Your task to perform on an android device: toggle airplane mode Image 0: 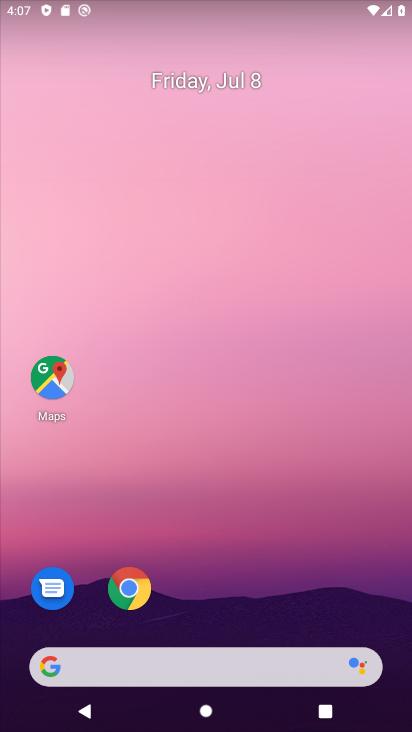
Step 0: drag from (298, 715) to (230, 239)
Your task to perform on an android device: toggle airplane mode Image 1: 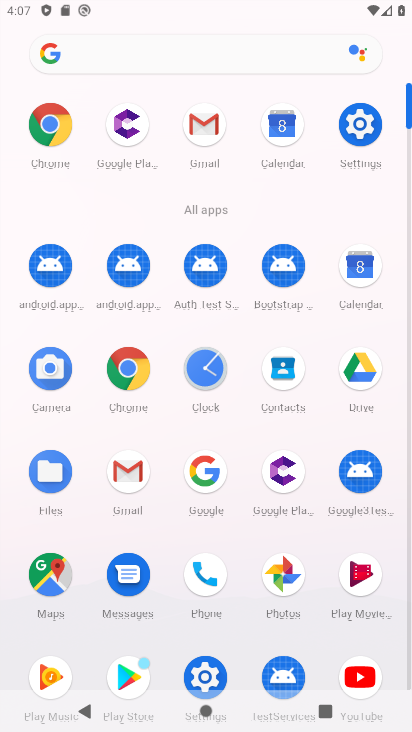
Step 1: click (356, 119)
Your task to perform on an android device: toggle airplane mode Image 2: 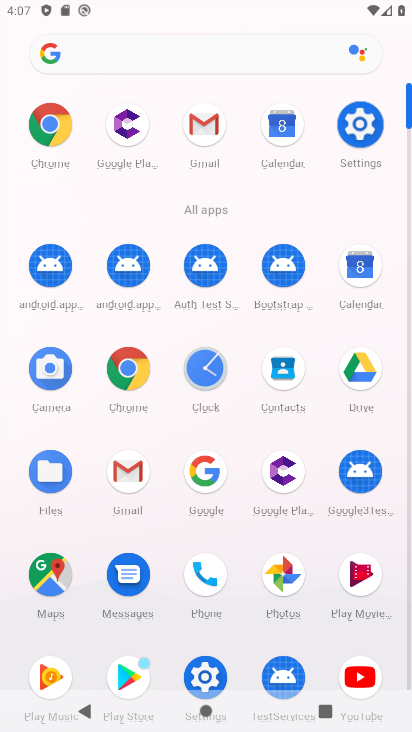
Step 2: click (358, 121)
Your task to perform on an android device: toggle airplane mode Image 3: 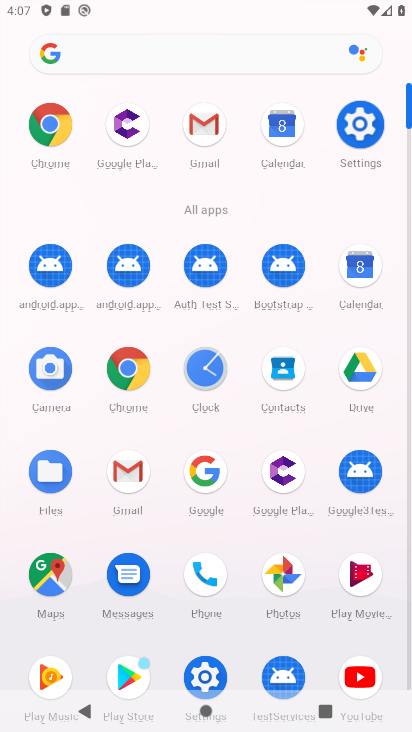
Step 3: click (358, 121)
Your task to perform on an android device: toggle airplane mode Image 4: 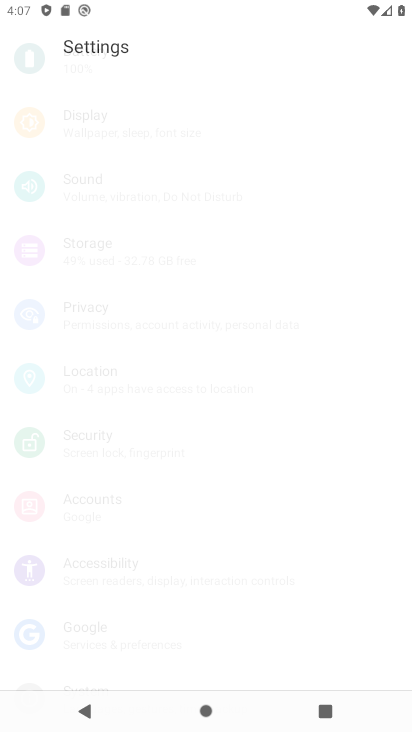
Step 4: click (358, 122)
Your task to perform on an android device: toggle airplane mode Image 5: 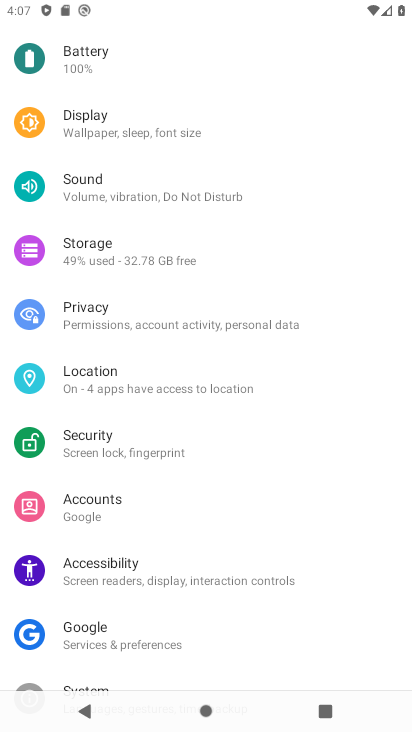
Step 5: click (358, 122)
Your task to perform on an android device: toggle airplane mode Image 6: 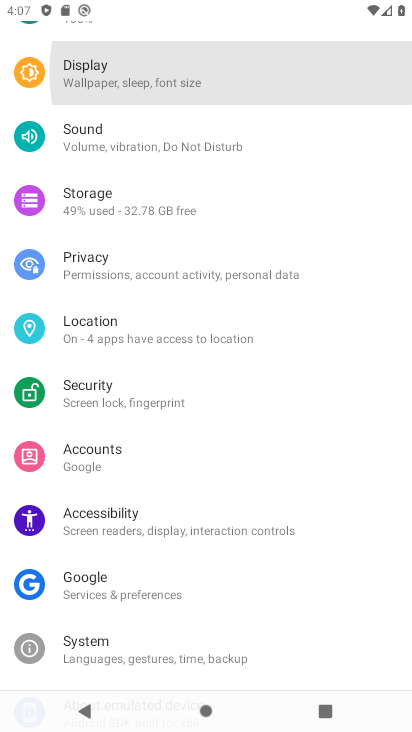
Step 6: click (358, 122)
Your task to perform on an android device: toggle airplane mode Image 7: 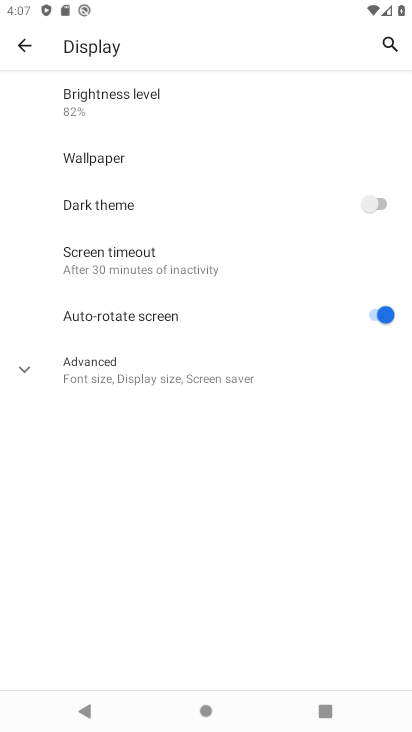
Step 7: click (22, 40)
Your task to perform on an android device: toggle airplane mode Image 8: 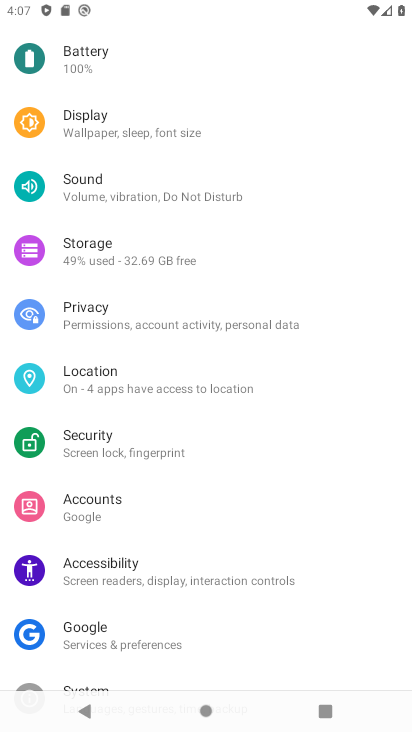
Step 8: drag from (152, 165) to (164, 508)
Your task to perform on an android device: toggle airplane mode Image 9: 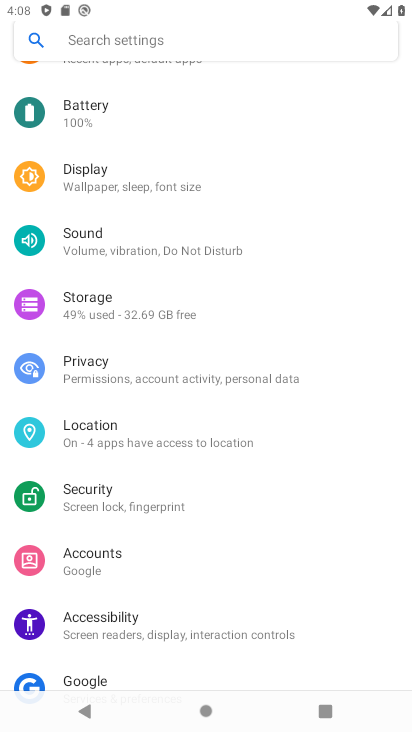
Step 9: drag from (101, 194) to (143, 450)
Your task to perform on an android device: toggle airplane mode Image 10: 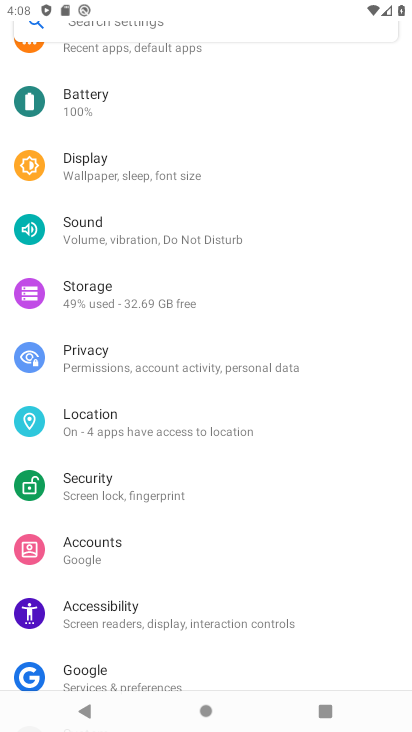
Step 10: drag from (123, 302) to (298, 528)
Your task to perform on an android device: toggle airplane mode Image 11: 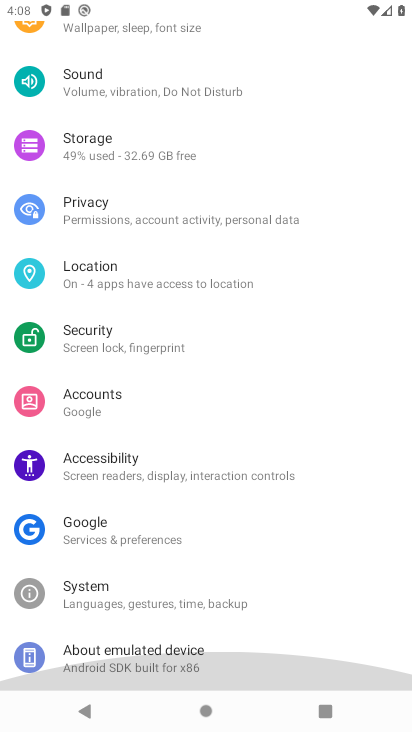
Step 11: drag from (175, 488) to (138, 253)
Your task to perform on an android device: toggle airplane mode Image 12: 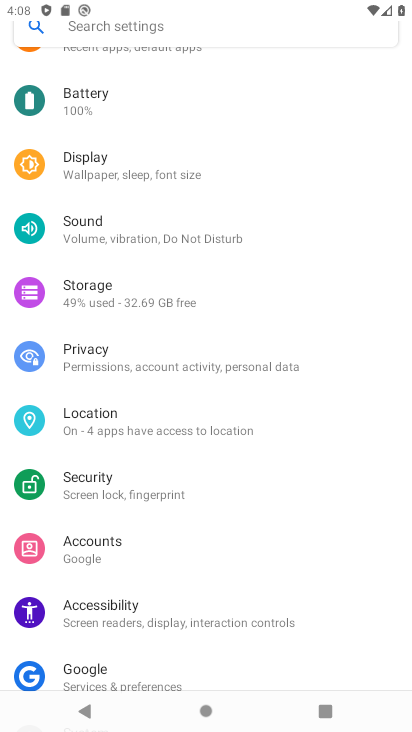
Step 12: click (145, 390)
Your task to perform on an android device: toggle airplane mode Image 13: 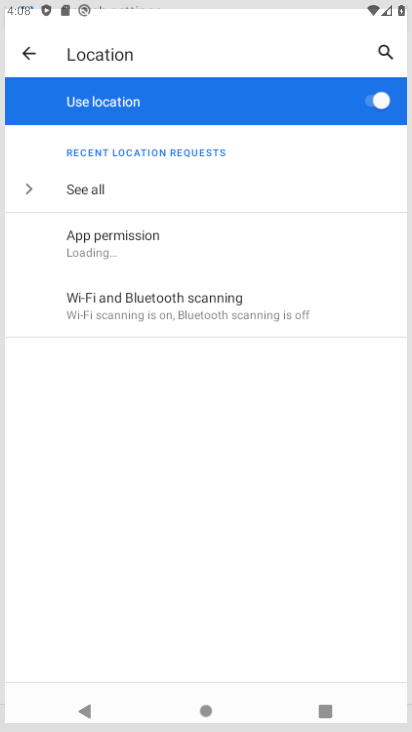
Step 13: drag from (102, 274) to (161, 496)
Your task to perform on an android device: toggle airplane mode Image 14: 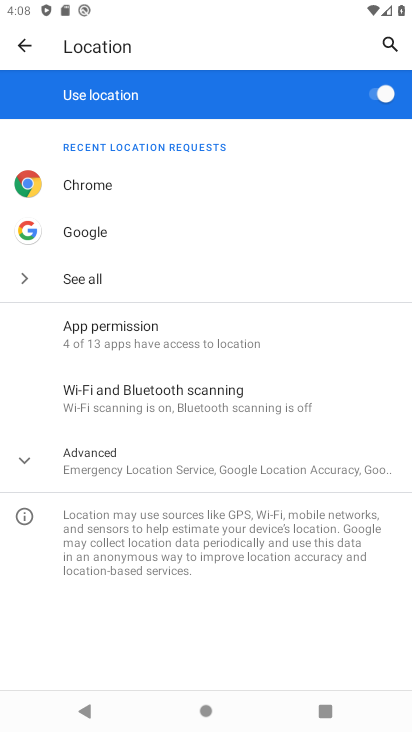
Step 14: click (43, 46)
Your task to perform on an android device: toggle airplane mode Image 15: 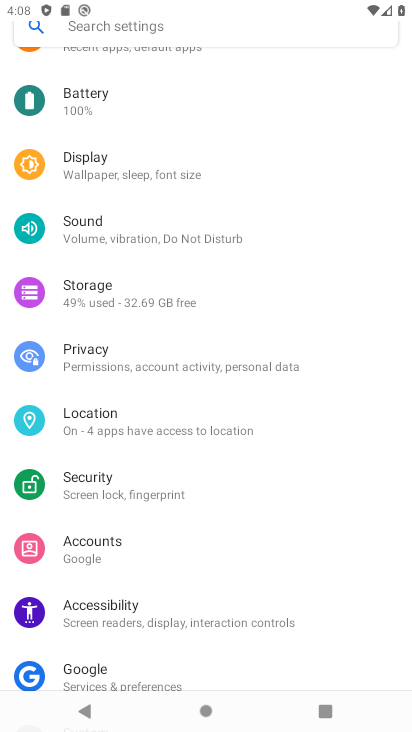
Step 15: click (186, 459)
Your task to perform on an android device: toggle airplane mode Image 16: 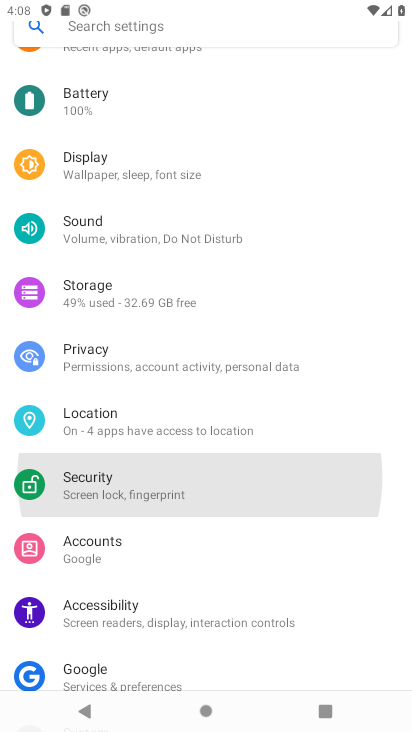
Step 16: click (270, 600)
Your task to perform on an android device: toggle airplane mode Image 17: 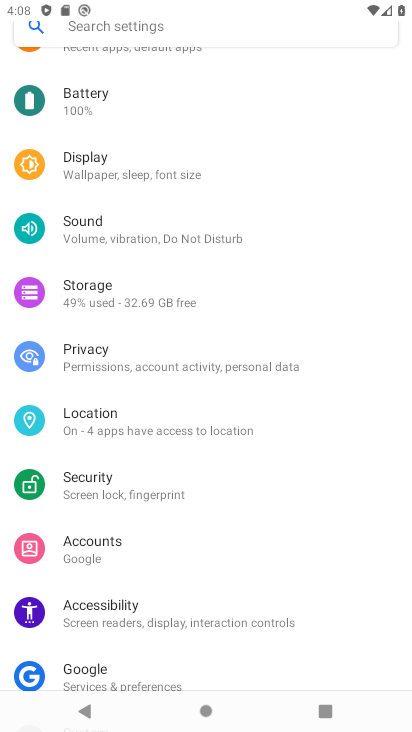
Step 17: click (295, 624)
Your task to perform on an android device: toggle airplane mode Image 18: 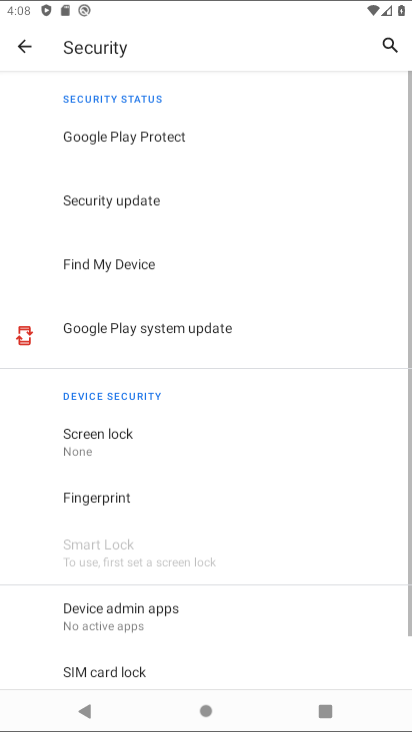
Step 18: click (185, 580)
Your task to perform on an android device: toggle airplane mode Image 19: 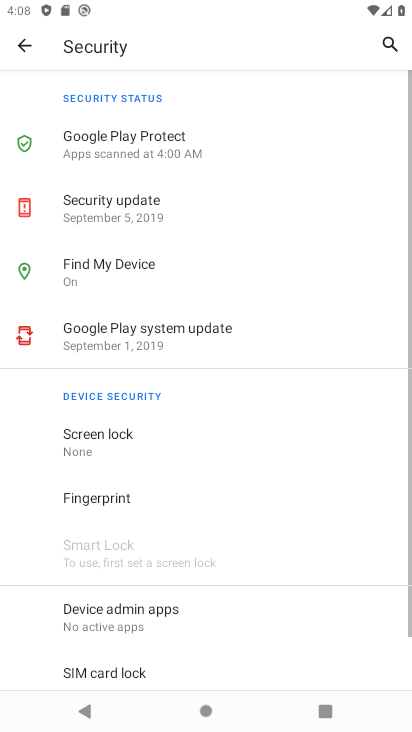
Step 19: drag from (195, 508) to (194, 560)
Your task to perform on an android device: toggle airplane mode Image 20: 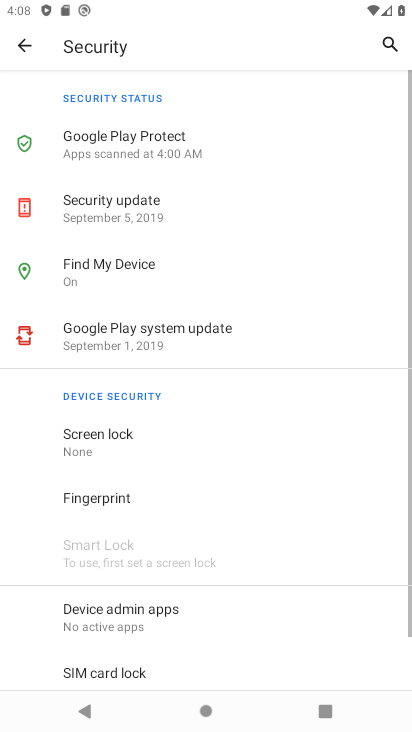
Step 20: click (20, 41)
Your task to perform on an android device: toggle airplane mode Image 21: 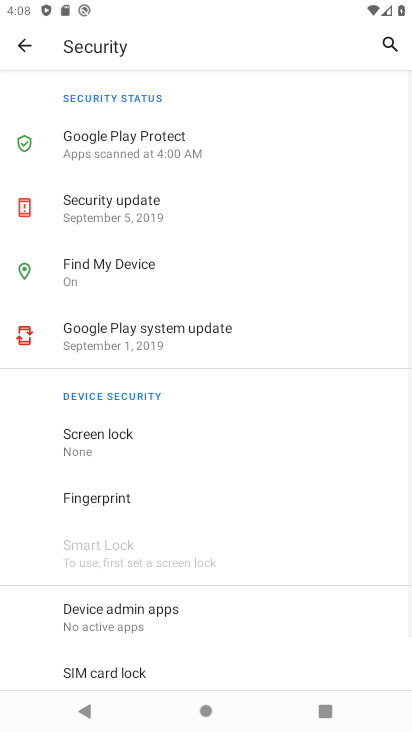
Step 21: click (24, 50)
Your task to perform on an android device: toggle airplane mode Image 22: 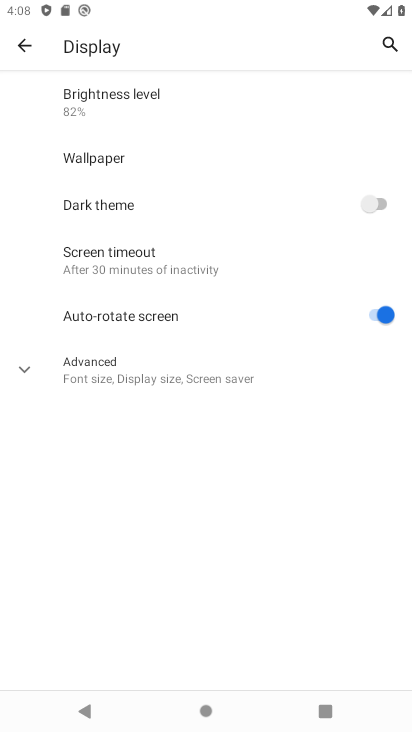
Step 22: drag from (97, 109) to (169, 430)
Your task to perform on an android device: toggle airplane mode Image 23: 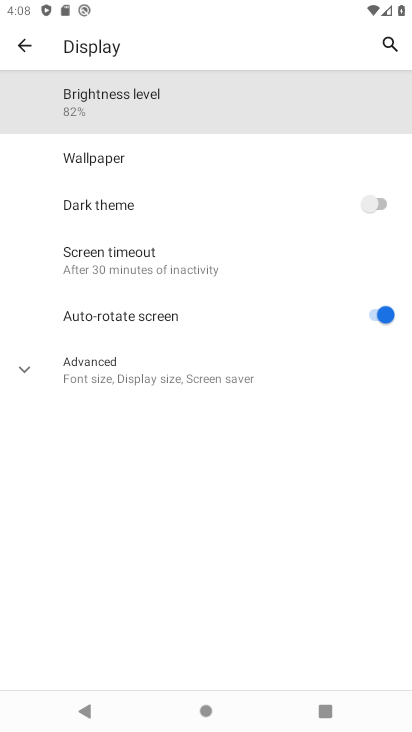
Step 23: drag from (241, 404) to (207, 697)
Your task to perform on an android device: toggle airplane mode Image 24: 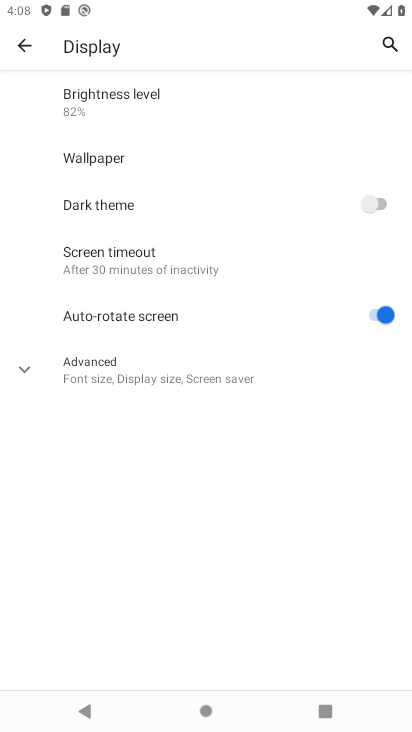
Step 24: click (19, 43)
Your task to perform on an android device: toggle airplane mode Image 25: 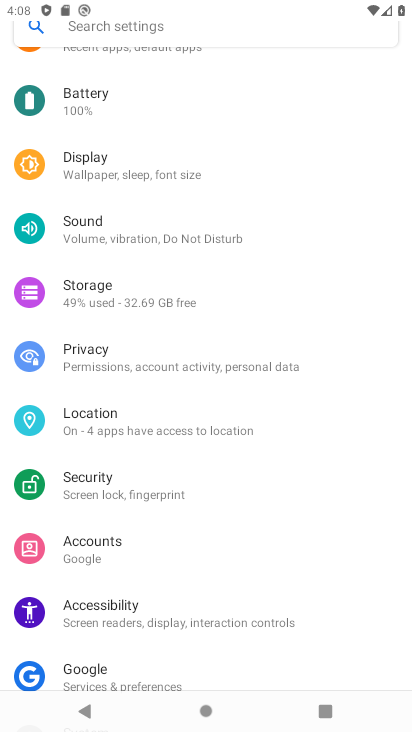
Step 25: drag from (173, 339) to (185, 629)
Your task to perform on an android device: toggle airplane mode Image 26: 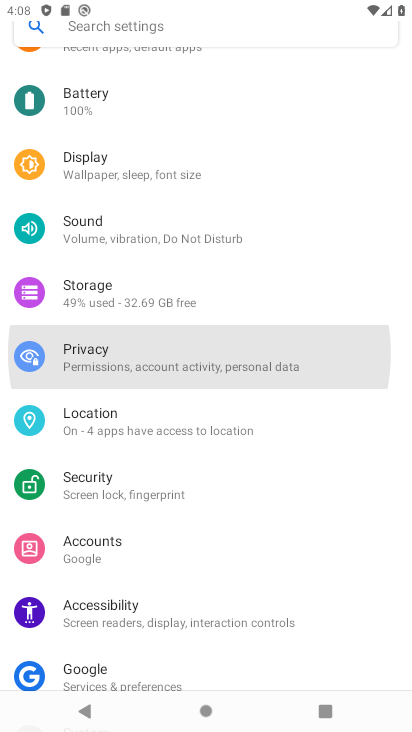
Step 26: drag from (146, 275) to (166, 555)
Your task to perform on an android device: toggle airplane mode Image 27: 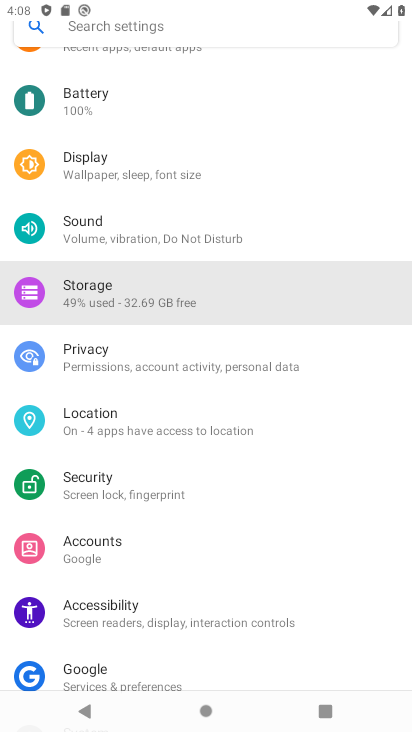
Step 27: drag from (99, 157) to (211, 646)
Your task to perform on an android device: toggle airplane mode Image 28: 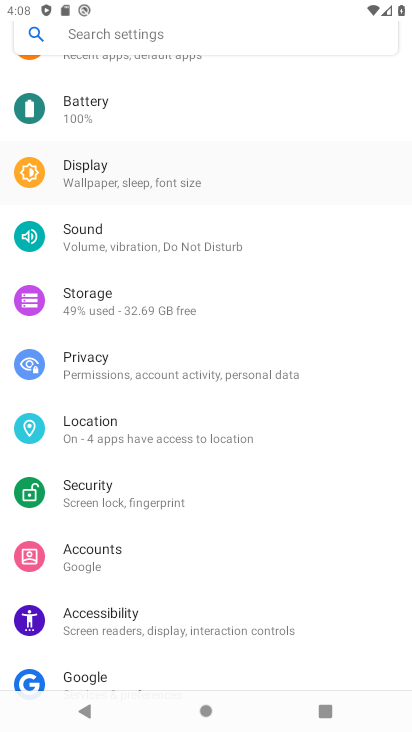
Step 28: drag from (121, 334) to (166, 630)
Your task to perform on an android device: toggle airplane mode Image 29: 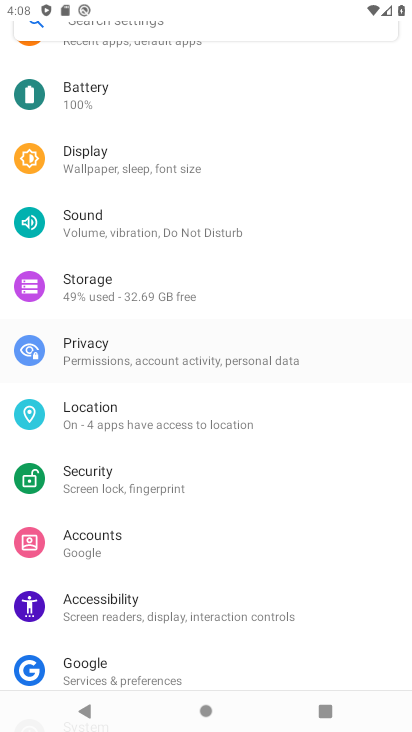
Step 29: drag from (151, 359) to (178, 578)
Your task to perform on an android device: toggle airplane mode Image 30: 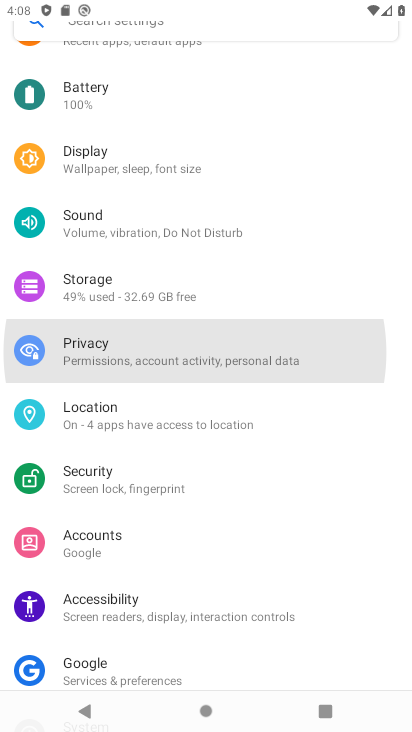
Step 30: drag from (172, 115) to (194, 522)
Your task to perform on an android device: toggle airplane mode Image 31: 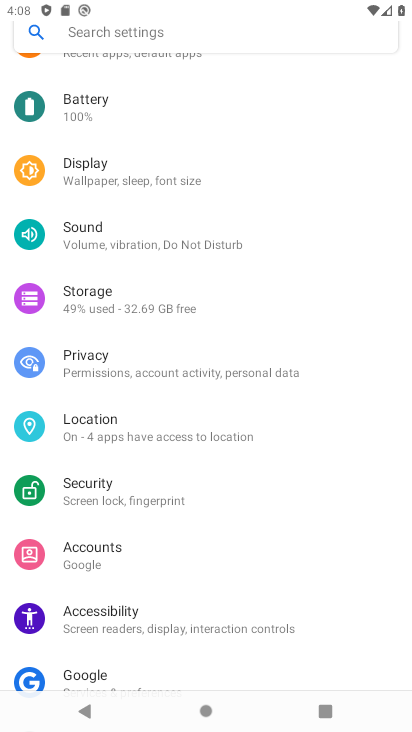
Step 31: drag from (134, 133) to (221, 647)
Your task to perform on an android device: toggle airplane mode Image 32: 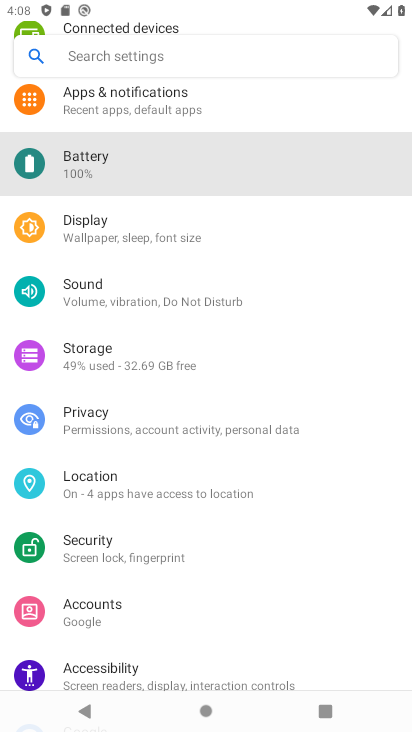
Step 32: drag from (192, 296) to (127, 530)
Your task to perform on an android device: toggle airplane mode Image 33: 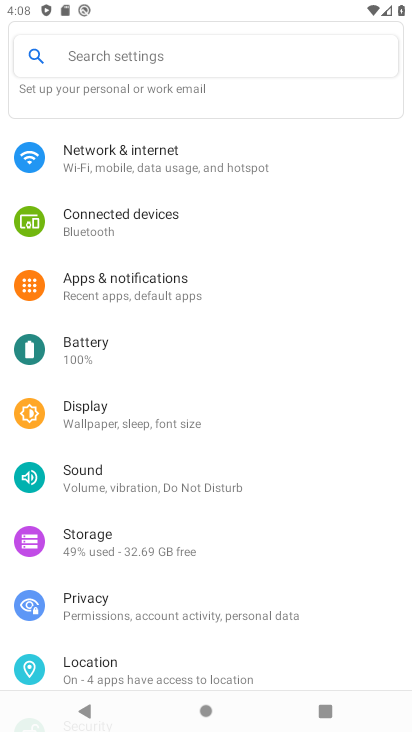
Step 33: click (188, 568)
Your task to perform on an android device: toggle airplane mode Image 34: 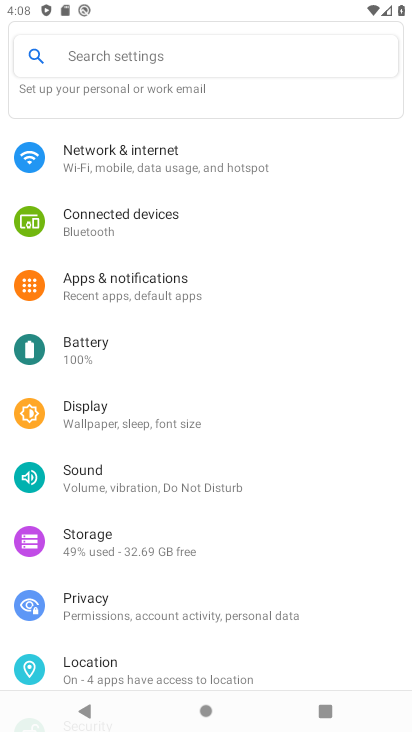
Step 34: click (126, 159)
Your task to perform on an android device: toggle airplane mode Image 35: 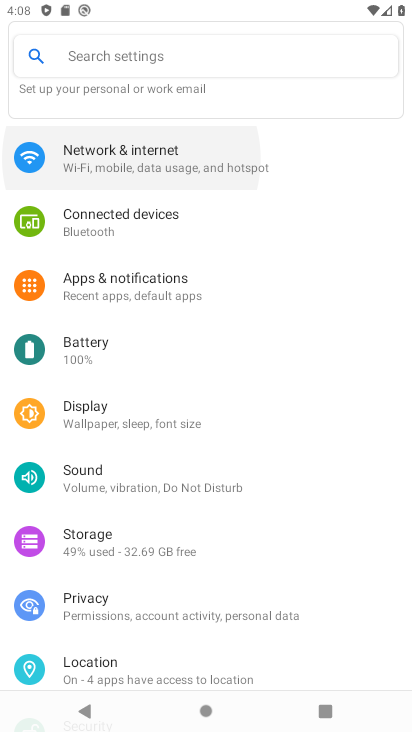
Step 35: click (113, 155)
Your task to perform on an android device: toggle airplane mode Image 36: 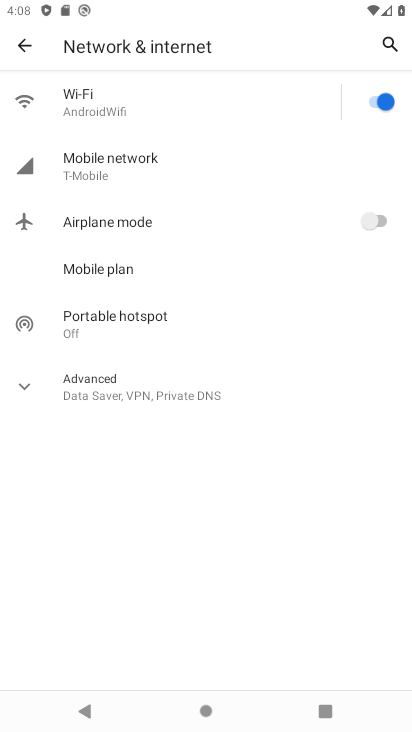
Step 36: click (121, 154)
Your task to perform on an android device: toggle airplane mode Image 37: 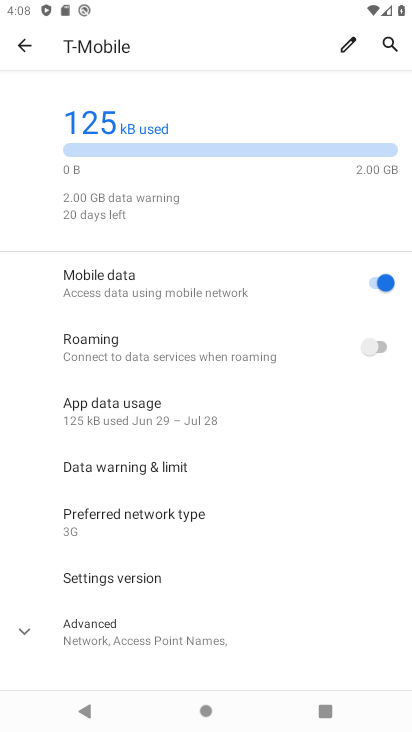
Step 37: click (21, 47)
Your task to perform on an android device: toggle airplane mode Image 38: 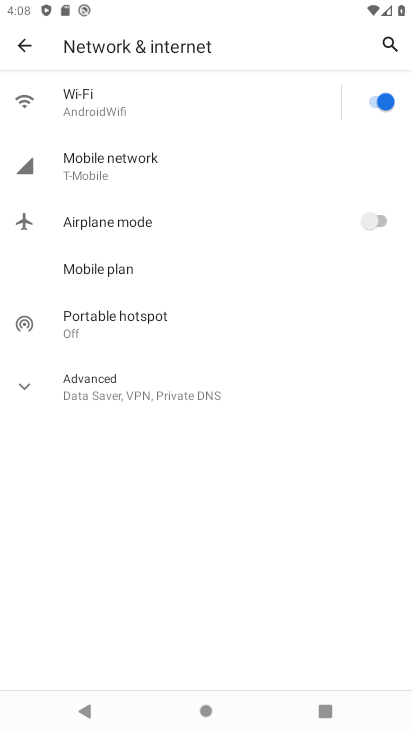
Step 38: click (372, 212)
Your task to perform on an android device: toggle airplane mode Image 39: 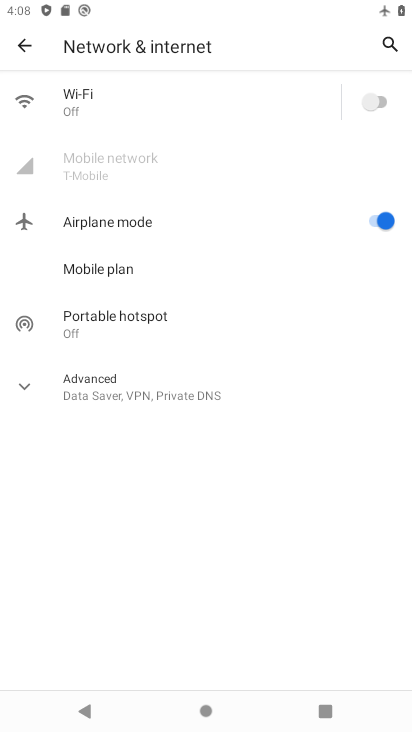
Step 39: click (371, 220)
Your task to perform on an android device: toggle airplane mode Image 40: 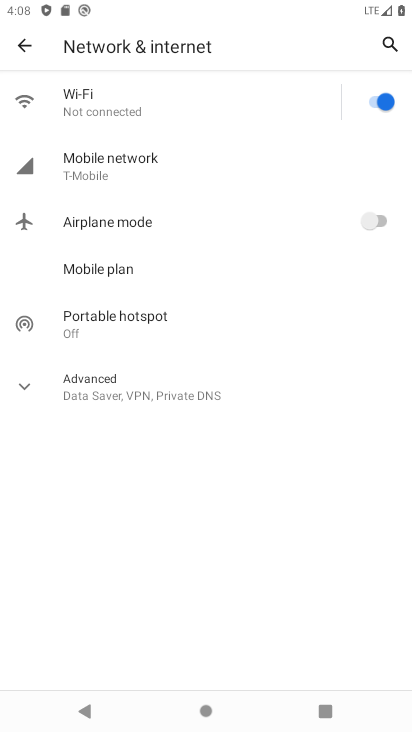
Step 40: task complete